Your task to perform on an android device: open app "Life360: Find Family & Friends" (install if not already installed) and go to login screen Image 0: 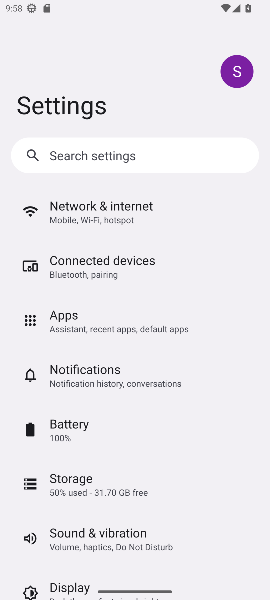
Step 0: press home button
Your task to perform on an android device: open app "Life360: Find Family & Friends" (install if not already installed) and go to login screen Image 1: 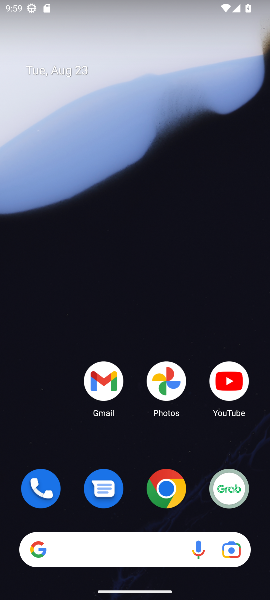
Step 1: drag from (140, 229) to (140, 59)
Your task to perform on an android device: open app "Life360: Find Family & Friends" (install if not already installed) and go to login screen Image 2: 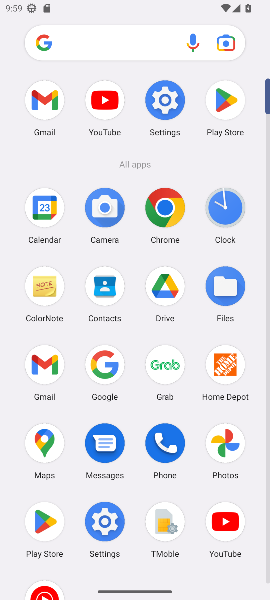
Step 2: click (221, 105)
Your task to perform on an android device: open app "Life360: Find Family & Friends" (install if not already installed) and go to login screen Image 3: 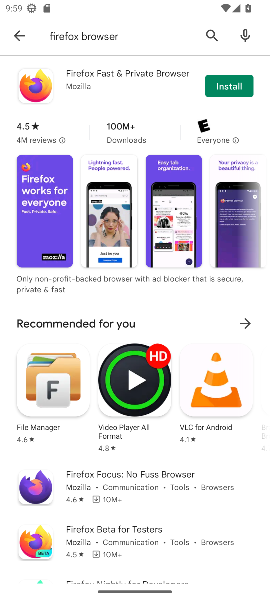
Step 3: click (19, 34)
Your task to perform on an android device: open app "Life360: Find Family & Friends" (install if not already installed) and go to login screen Image 4: 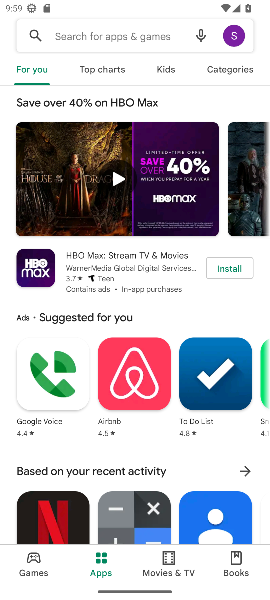
Step 4: click (128, 34)
Your task to perform on an android device: open app "Life360: Find Family & Friends" (install if not already installed) and go to login screen Image 5: 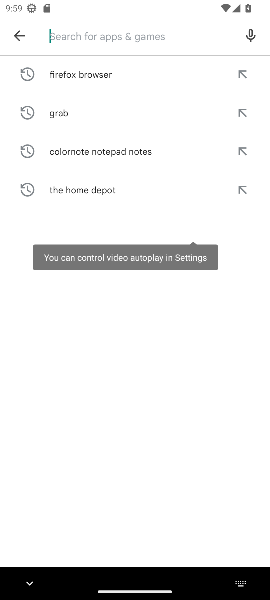
Step 5: type "Life360: Find Family & Friends"
Your task to perform on an android device: open app "Life360: Find Family & Friends" (install if not already installed) and go to login screen Image 6: 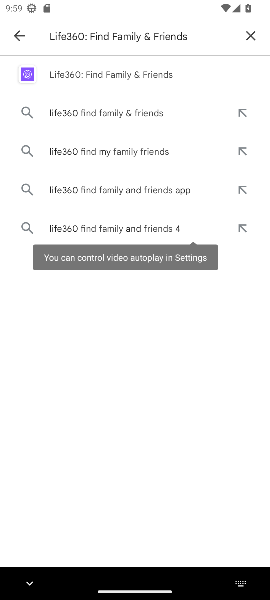
Step 6: click (76, 74)
Your task to perform on an android device: open app "Life360: Find Family & Friends" (install if not already installed) and go to login screen Image 7: 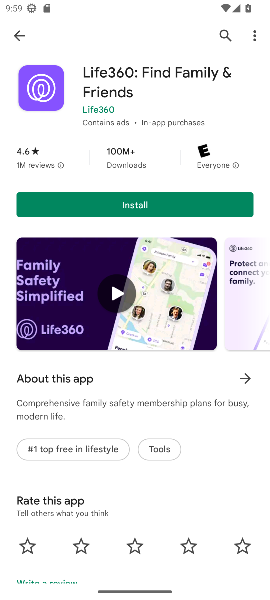
Step 7: click (132, 198)
Your task to perform on an android device: open app "Life360: Find Family & Friends" (install if not already installed) and go to login screen Image 8: 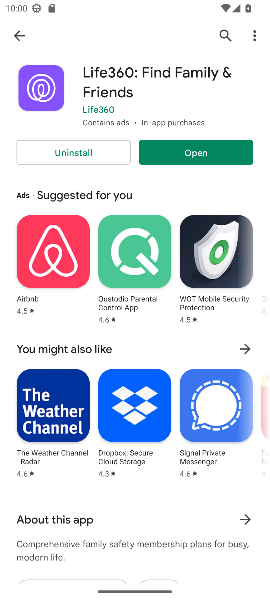
Step 8: click (178, 152)
Your task to perform on an android device: open app "Life360: Find Family & Friends" (install if not already installed) and go to login screen Image 9: 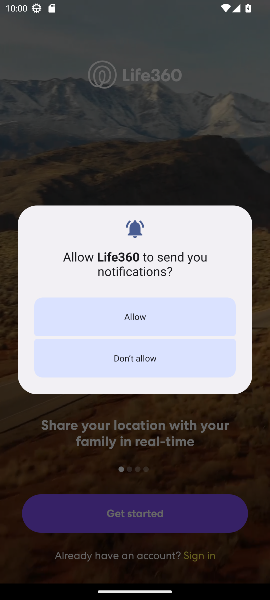
Step 9: click (132, 311)
Your task to perform on an android device: open app "Life360: Find Family & Friends" (install if not already installed) and go to login screen Image 10: 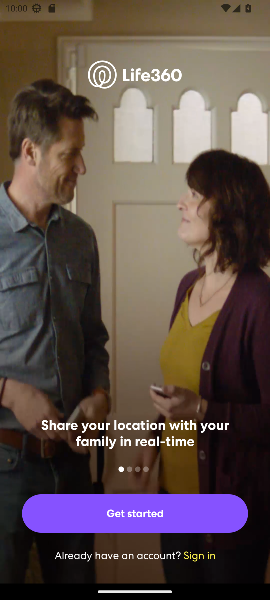
Step 10: task complete